Your task to perform on an android device: What's the news in India? Image 0: 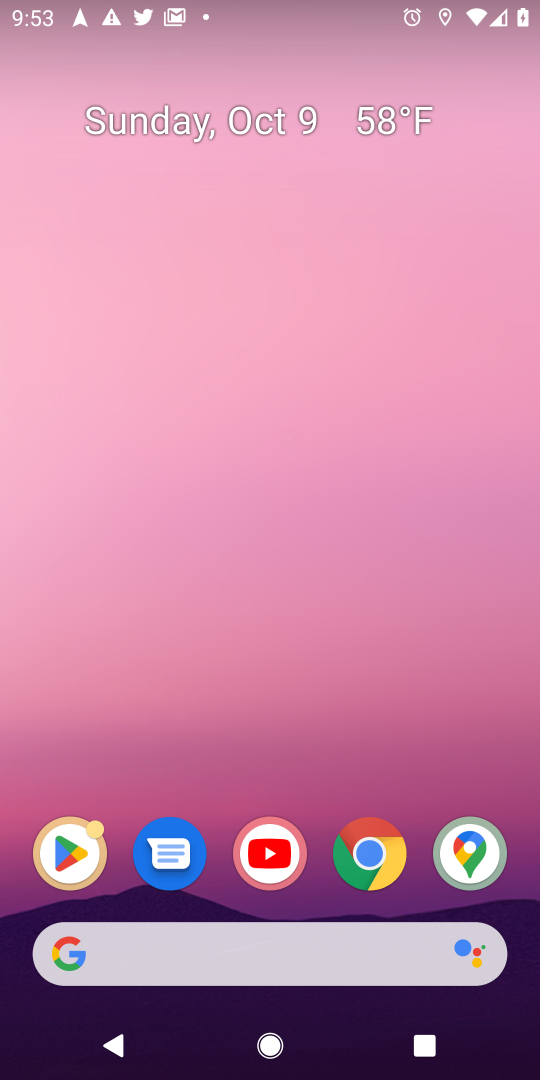
Step 0: click (392, 871)
Your task to perform on an android device: What's the news in India? Image 1: 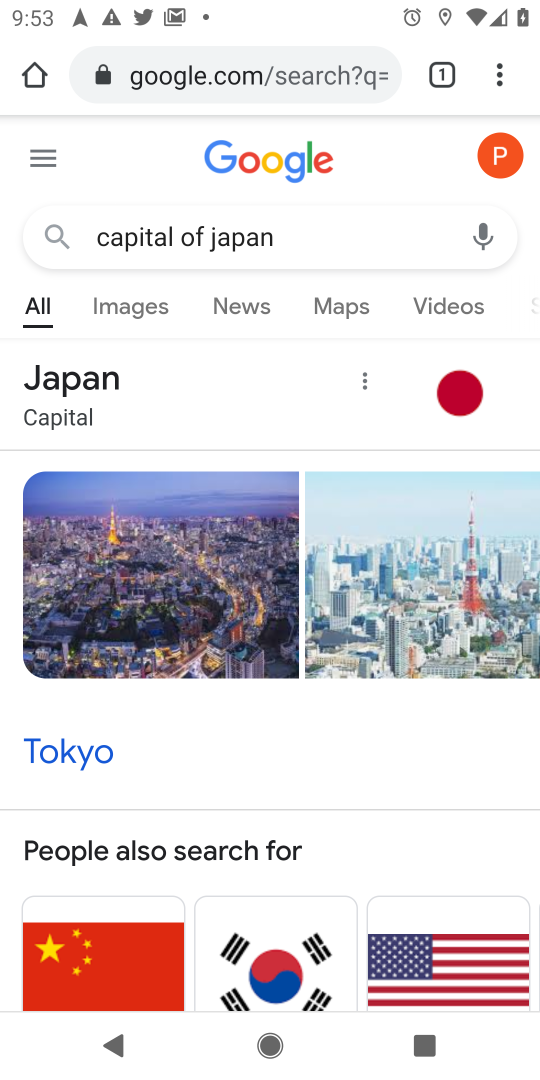
Step 1: click (188, 59)
Your task to perform on an android device: What's the news in India? Image 2: 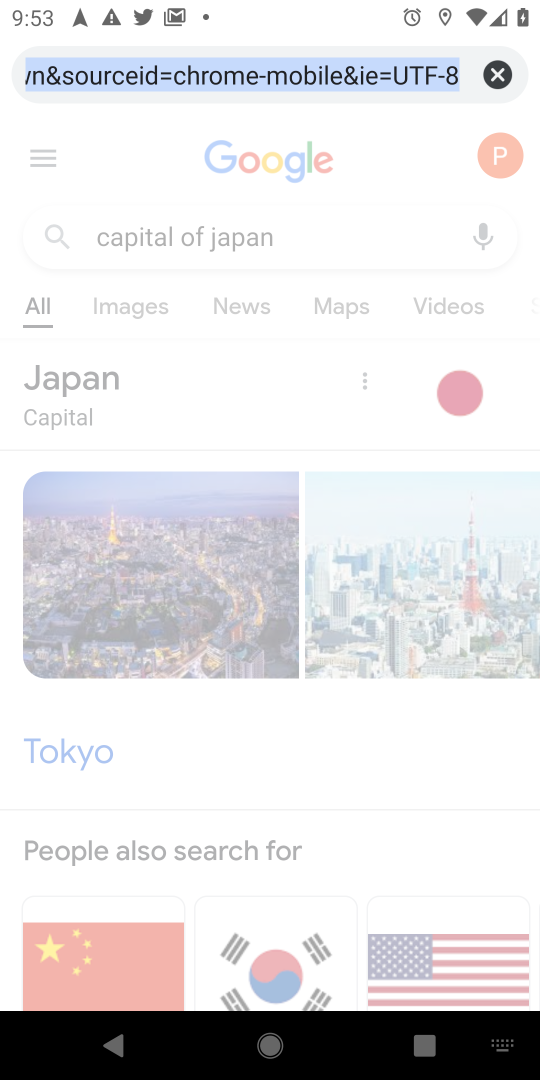
Step 2: type "news in India"
Your task to perform on an android device: What's the news in India? Image 3: 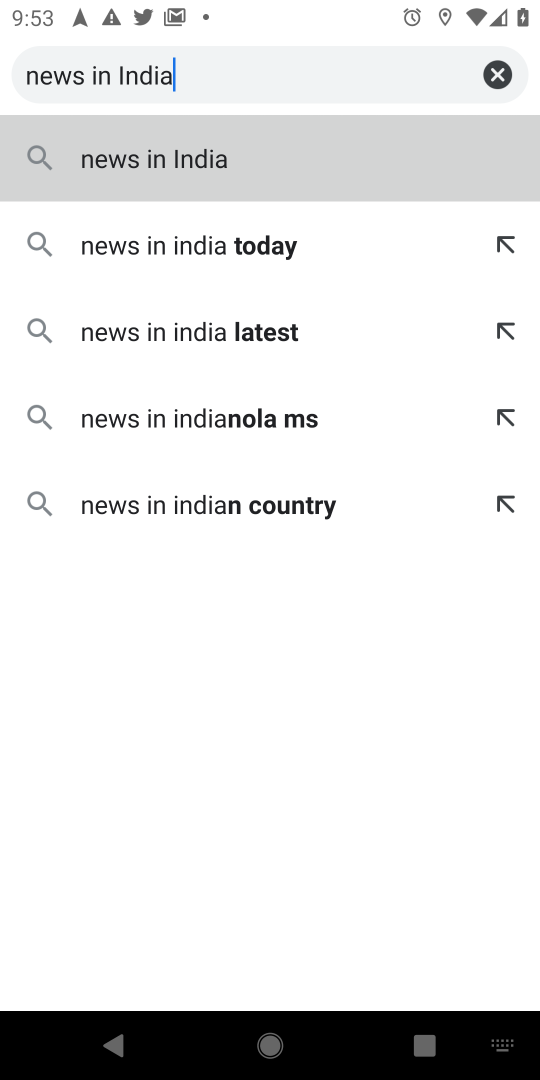
Step 3: click (379, 165)
Your task to perform on an android device: What's the news in India? Image 4: 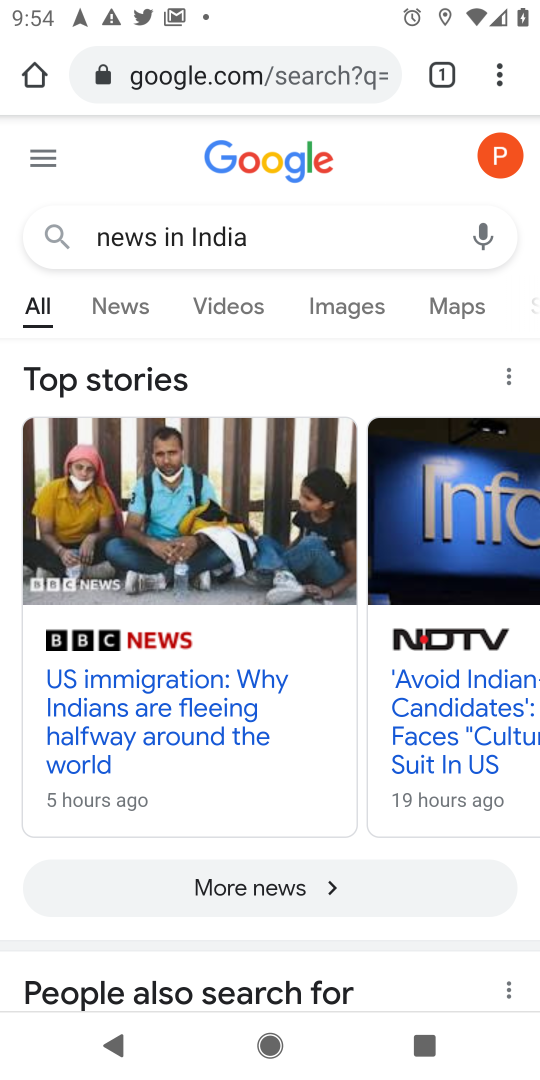
Step 4: click (134, 321)
Your task to perform on an android device: What's the news in India? Image 5: 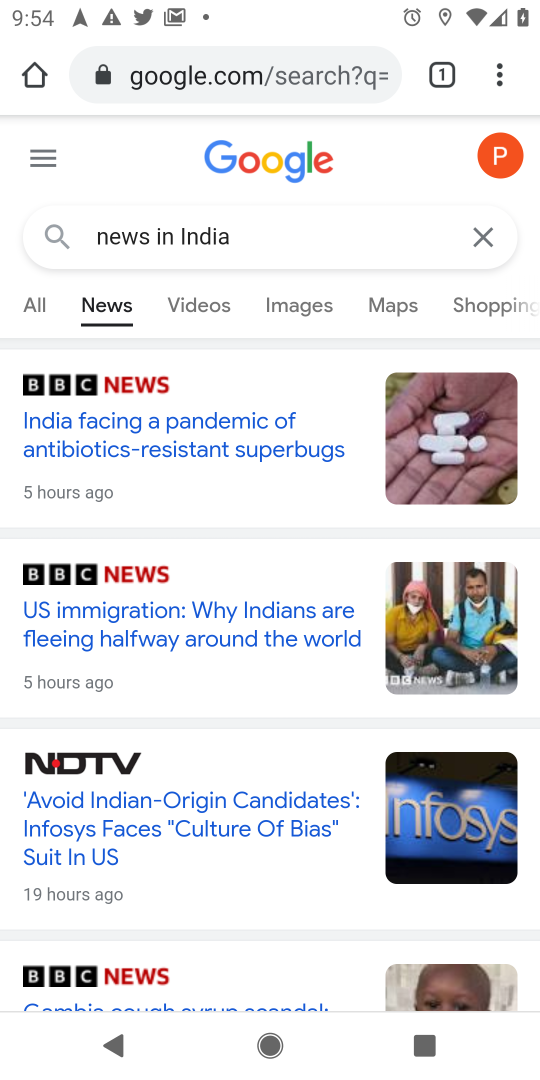
Step 5: task complete